Your task to perform on an android device: Go to Wikipedia Image 0: 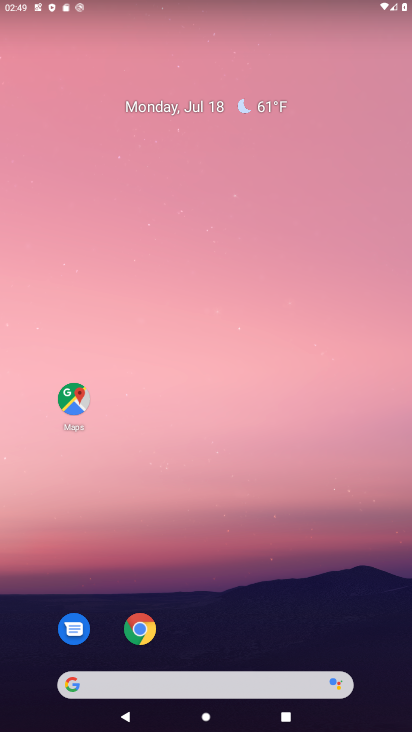
Step 0: click (139, 630)
Your task to perform on an android device: Go to Wikipedia Image 1: 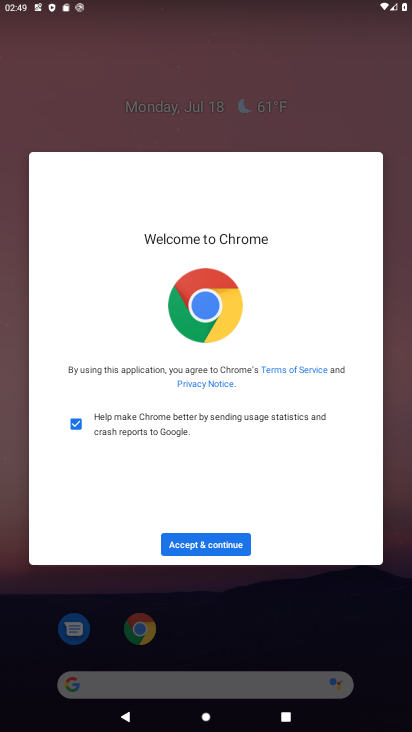
Step 1: click (218, 541)
Your task to perform on an android device: Go to Wikipedia Image 2: 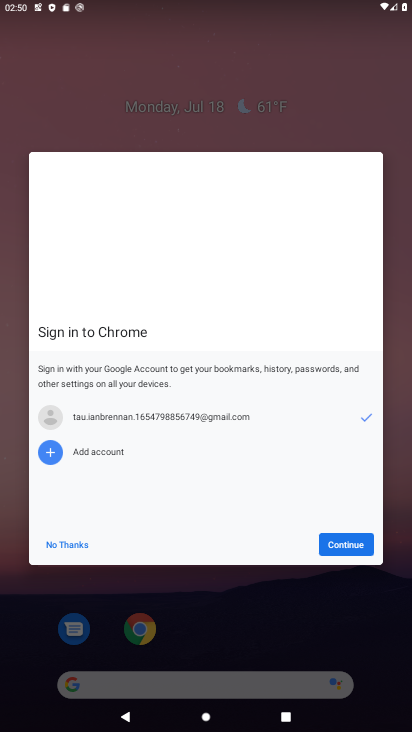
Step 2: click (342, 546)
Your task to perform on an android device: Go to Wikipedia Image 3: 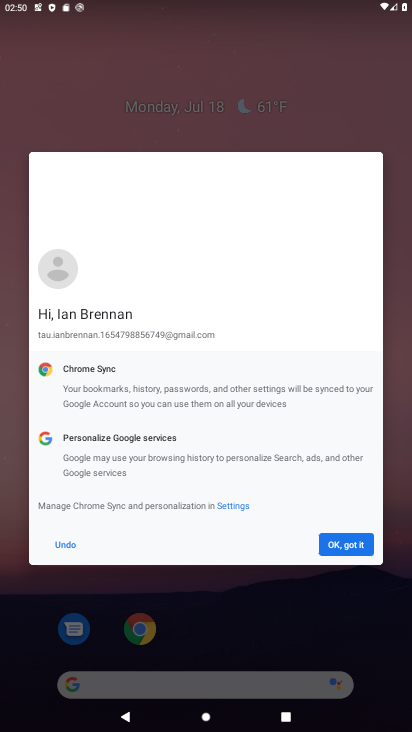
Step 3: click (342, 546)
Your task to perform on an android device: Go to Wikipedia Image 4: 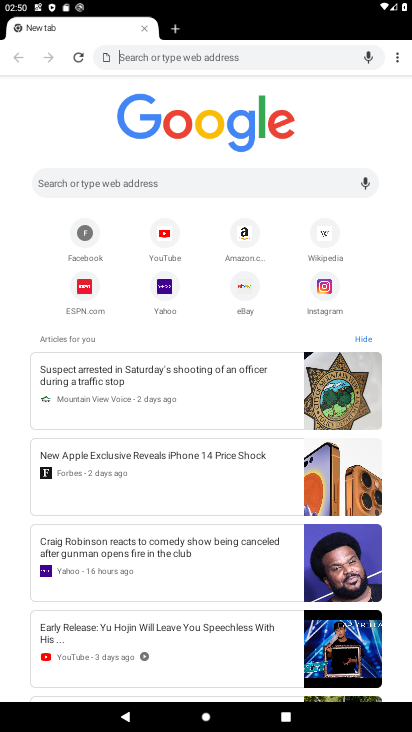
Step 4: click (326, 238)
Your task to perform on an android device: Go to Wikipedia Image 5: 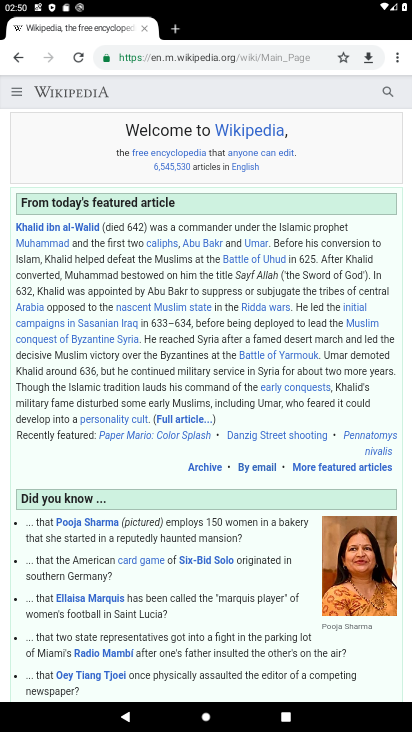
Step 5: task complete